Your task to perform on an android device: Open Google Image 0: 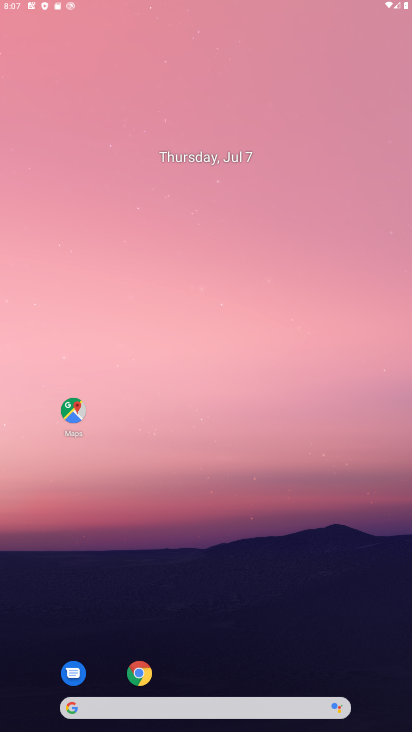
Step 0: press home button
Your task to perform on an android device: Open Google Image 1: 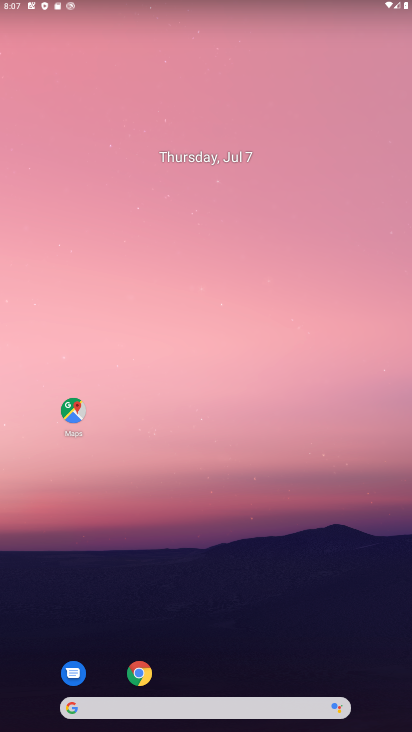
Step 1: click (73, 704)
Your task to perform on an android device: Open Google Image 2: 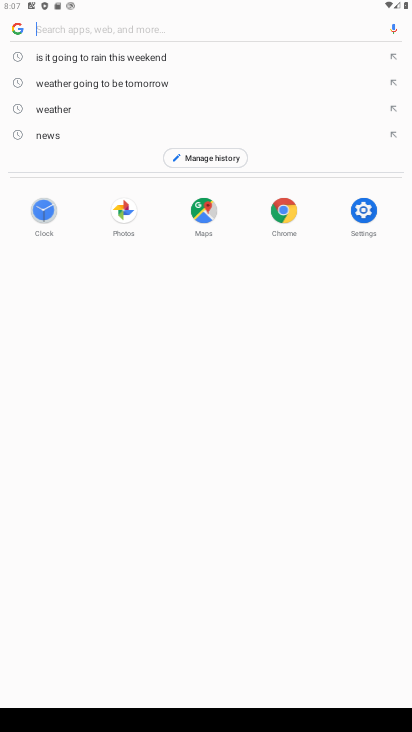
Step 2: task complete